Your task to perform on an android device: Open Google Chrome Image 0: 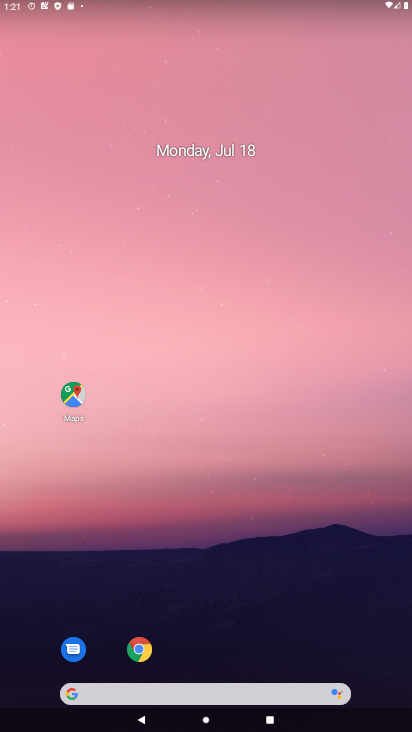
Step 0: drag from (207, 677) to (184, 17)
Your task to perform on an android device: Open Google Chrome Image 1: 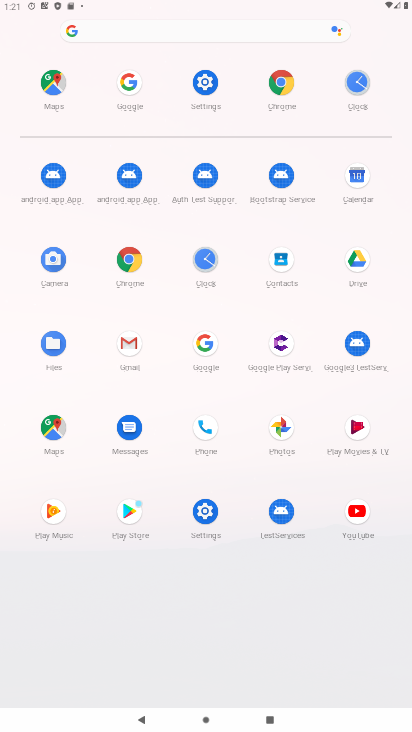
Step 1: click (134, 262)
Your task to perform on an android device: Open Google Chrome Image 2: 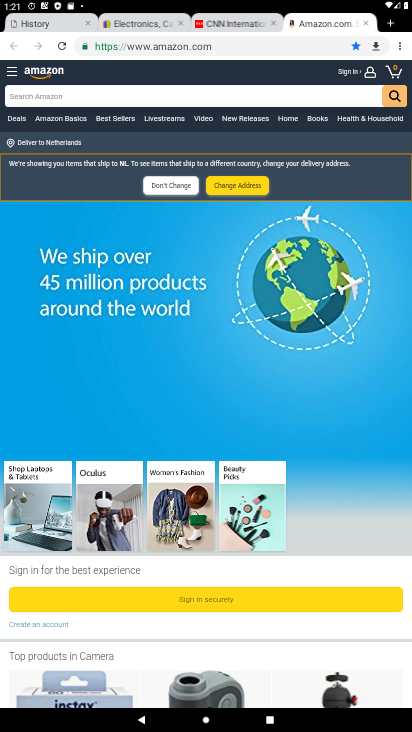
Step 2: task complete